Your task to perform on an android device: What's the weather going to be this weekend? Image 0: 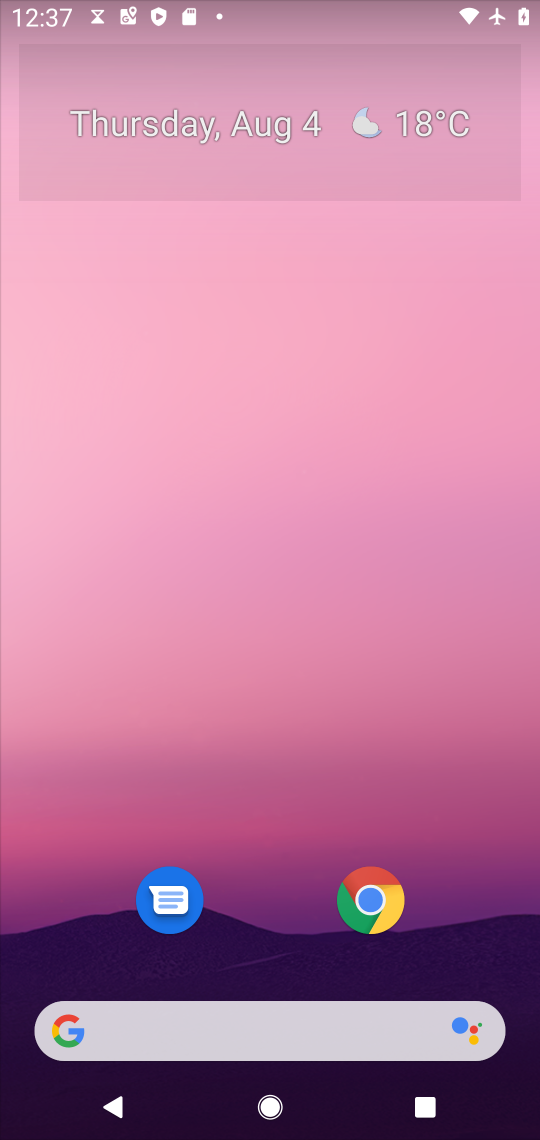
Step 0: press home button
Your task to perform on an android device: What's the weather going to be this weekend? Image 1: 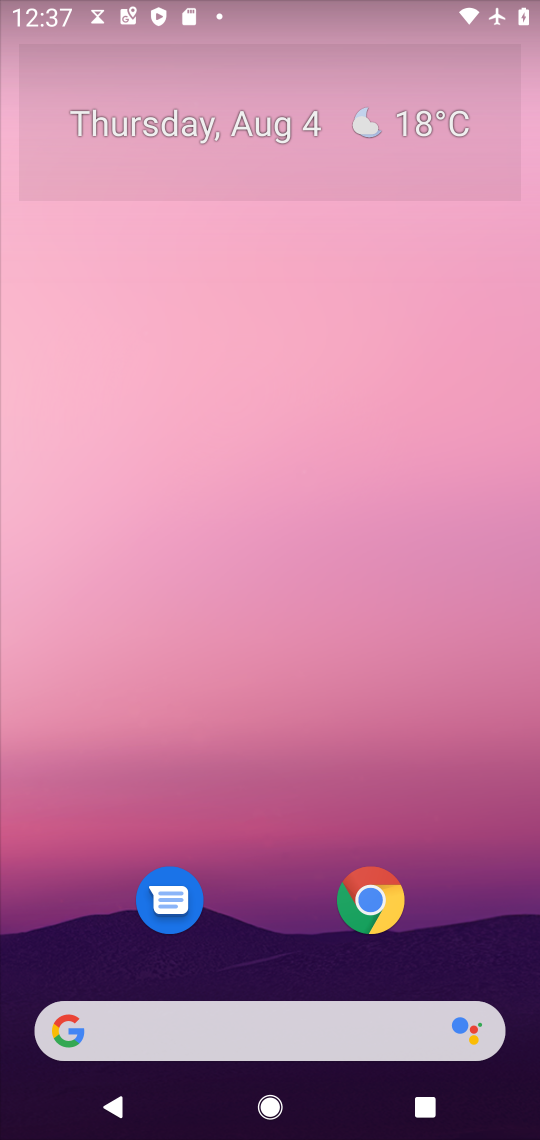
Step 1: click (72, 1032)
Your task to perform on an android device: What's the weather going to be this weekend? Image 2: 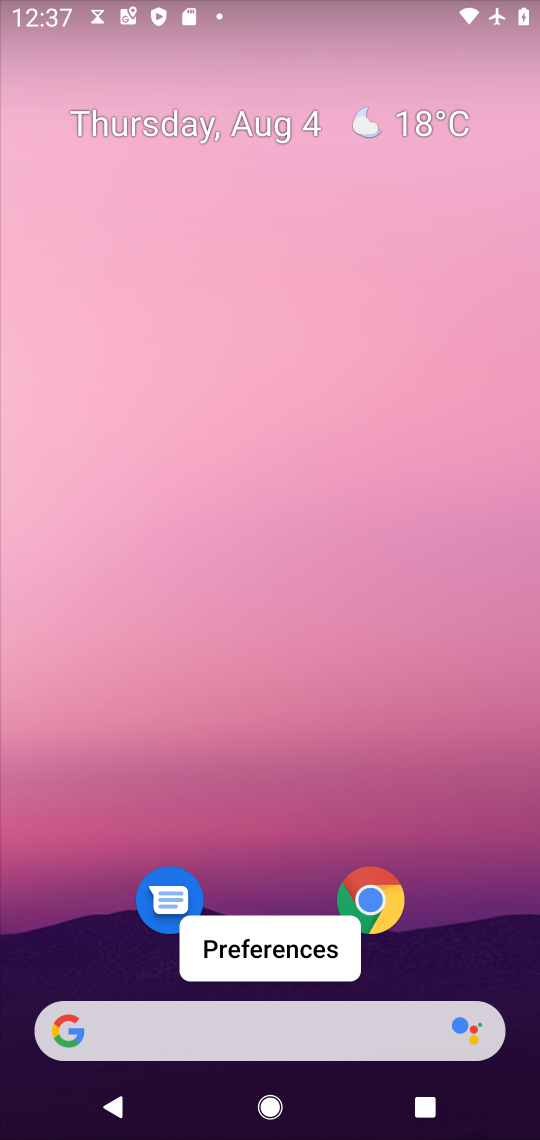
Step 2: click (81, 1035)
Your task to perform on an android device: What's the weather going to be this weekend? Image 3: 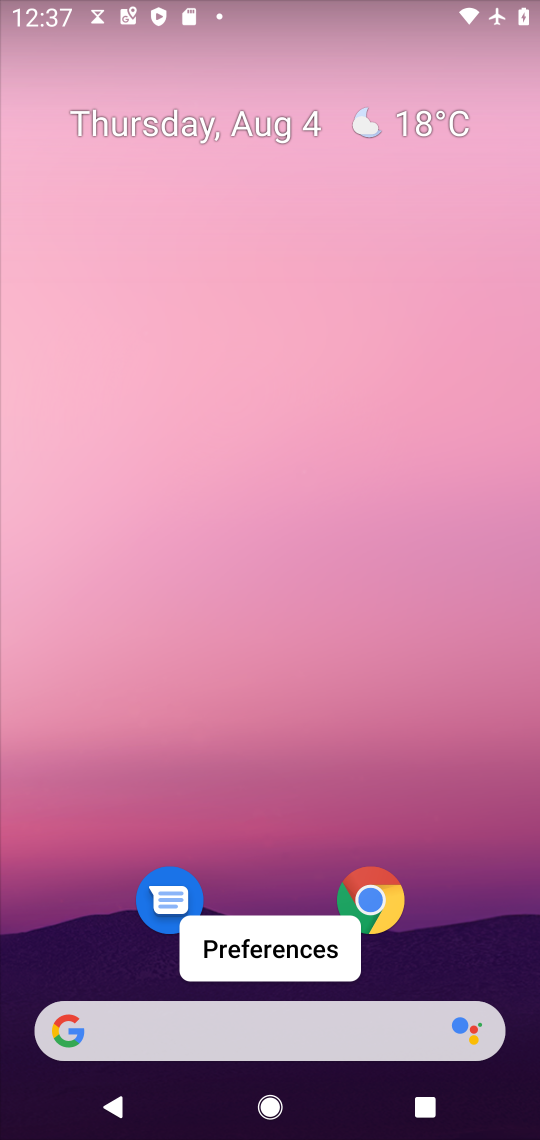
Step 3: click (74, 1028)
Your task to perform on an android device: What's the weather going to be this weekend? Image 4: 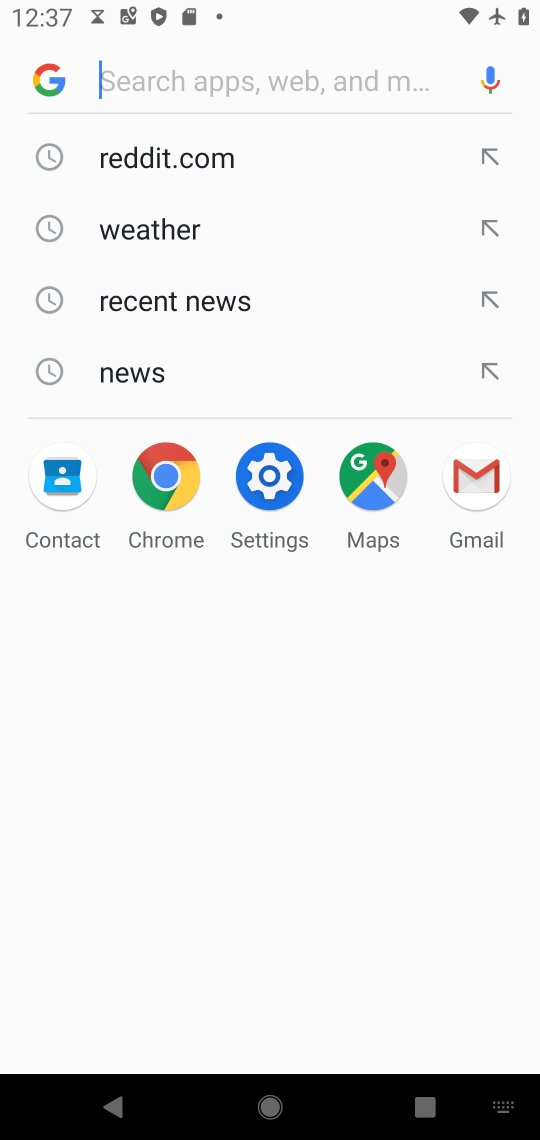
Step 4: type "weather going to be this weekend?"
Your task to perform on an android device: What's the weather going to be this weekend? Image 5: 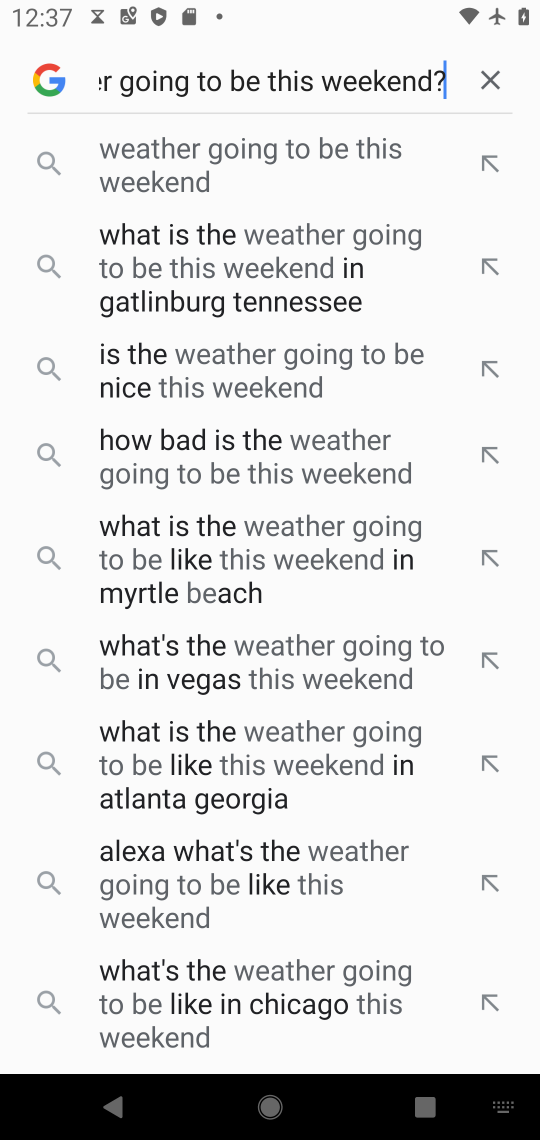
Step 5: press enter
Your task to perform on an android device: What's the weather going to be this weekend? Image 6: 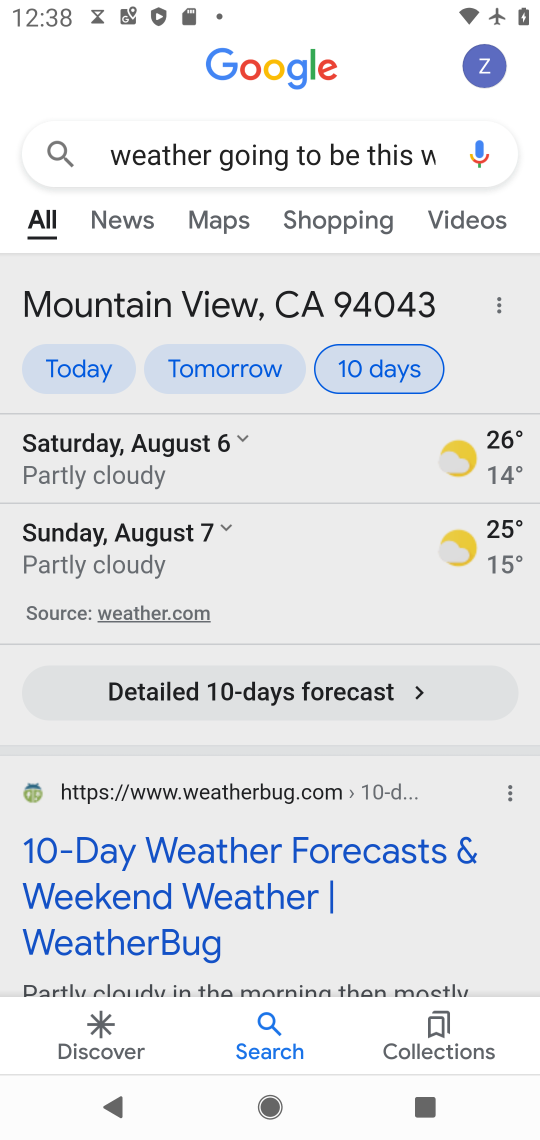
Step 6: task complete